Your task to perform on an android device: Open Google Maps and go to "Timeline" Image 0: 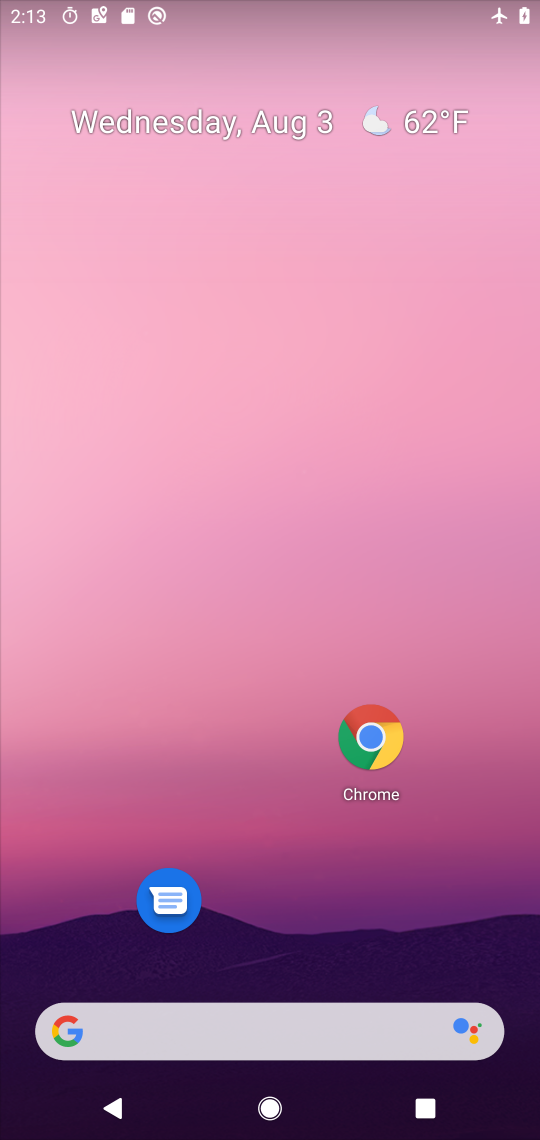
Step 0: drag from (238, 745) to (277, 255)
Your task to perform on an android device: Open Google Maps and go to "Timeline" Image 1: 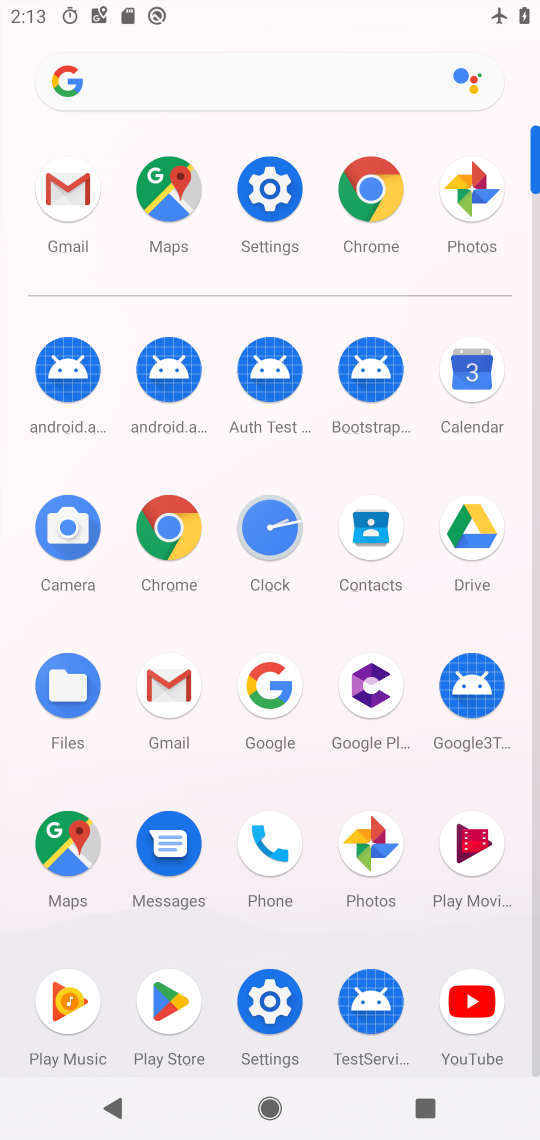
Step 1: click (78, 840)
Your task to perform on an android device: Open Google Maps and go to "Timeline" Image 2: 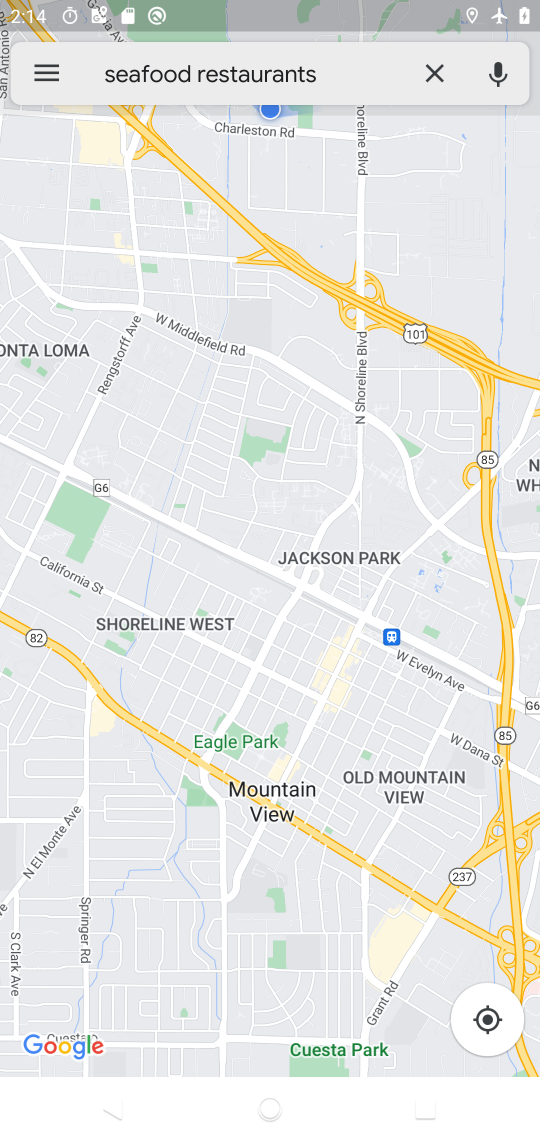
Step 2: click (43, 52)
Your task to perform on an android device: Open Google Maps and go to "Timeline" Image 3: 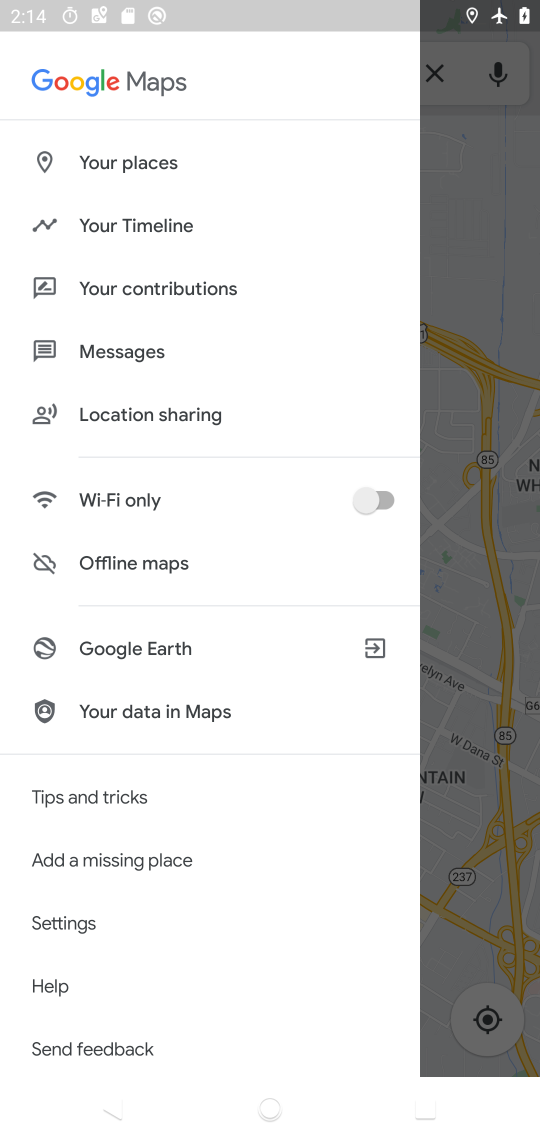
Step 3: click (170, 225)
Your task to perform on an android device: Open Google Maps and go to "Timeline" Image 4: 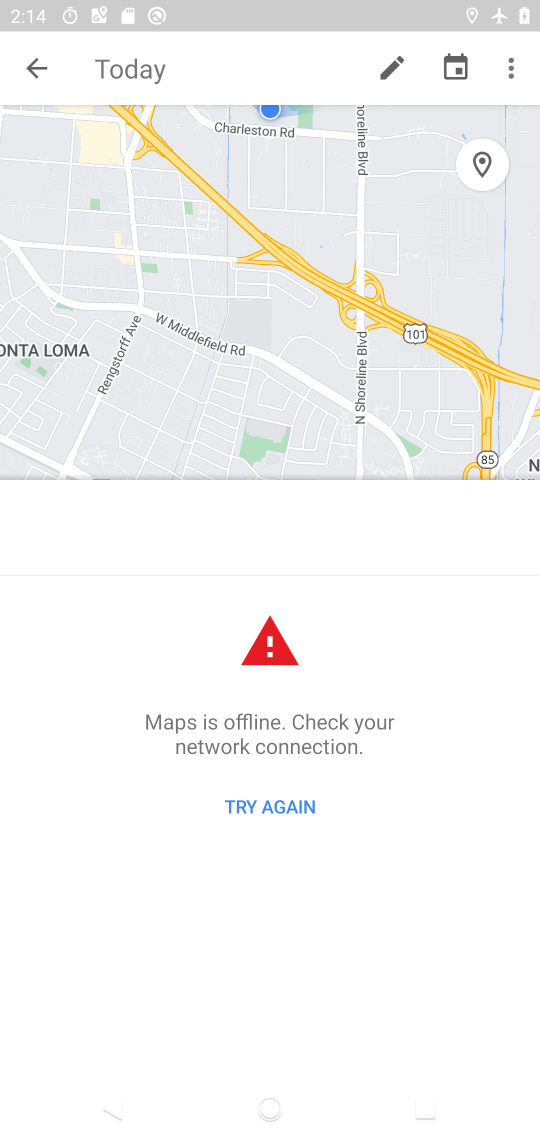
Step 4: task complete